Your task to perform on an android device: search for starred emails in the gmail app Image 0: 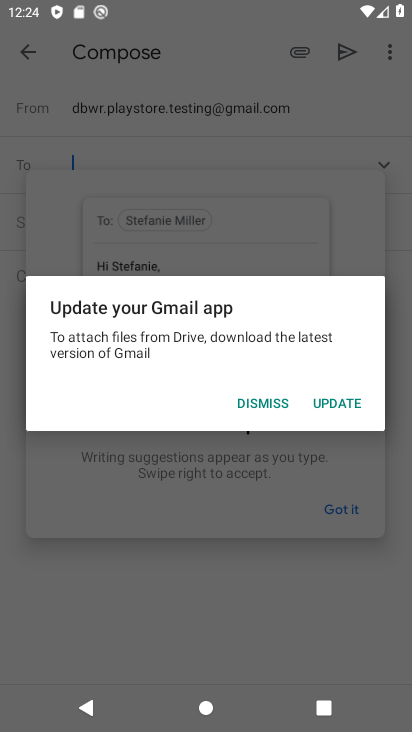
Step 0: press home button
Your task to perform on an android device: search for starred emails in the gmail app Image 1: 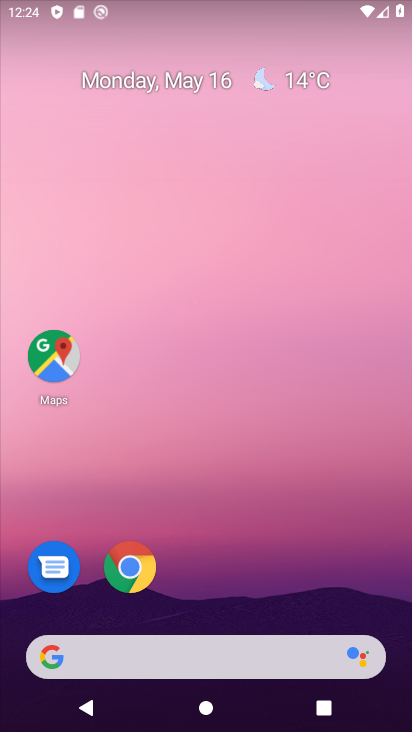
Step 1: drag from (248, 527) to (131, 85)
Your task to perform on an android device: search for starred emails in the gmail app Image 2: 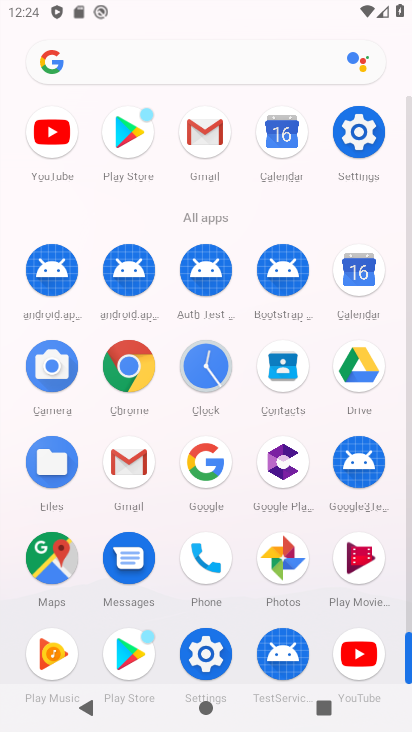
Step 2: click (131, 469)
Your task to perform on an android device: search for starred emails in the gmail app Image 3: 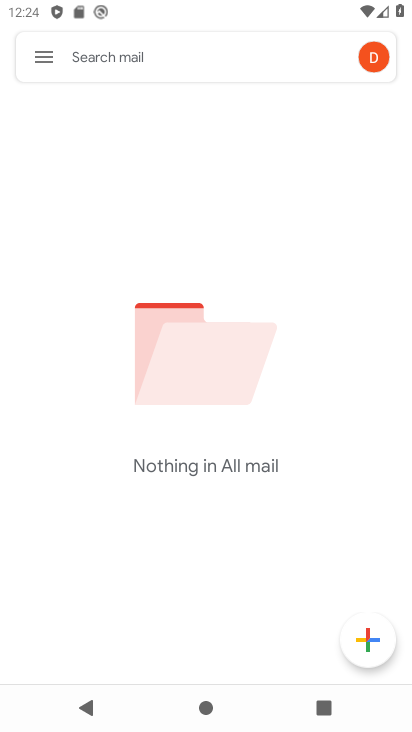
Step 3: click (33, 49)
Your task to perform on an android device: search for starred emails in the gmail app Image 4: 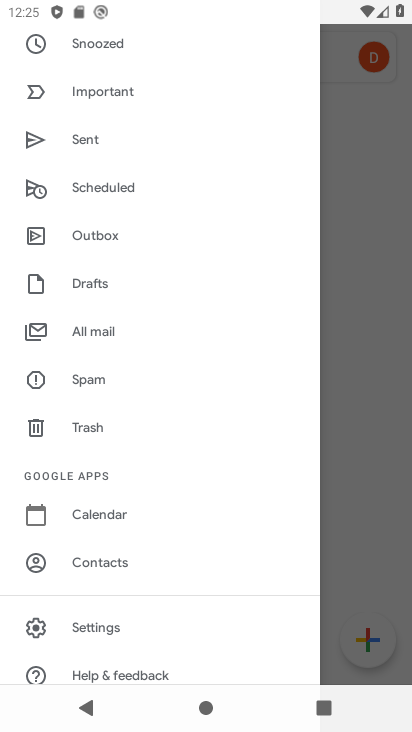
Step 4: drag from (182, 236) to (194, 635)
Your task to perform on an android device: search for starred emails in the gmail app Image 5: 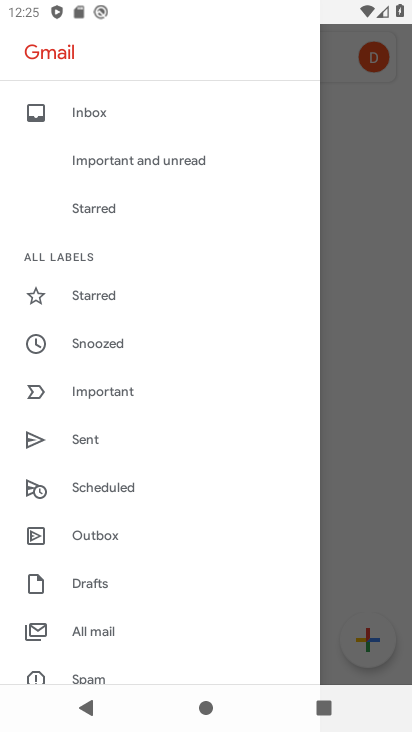
Step 5: click (94, 295)
Your task to perform on an android device: search for starred emails in the gmail app Image 6: 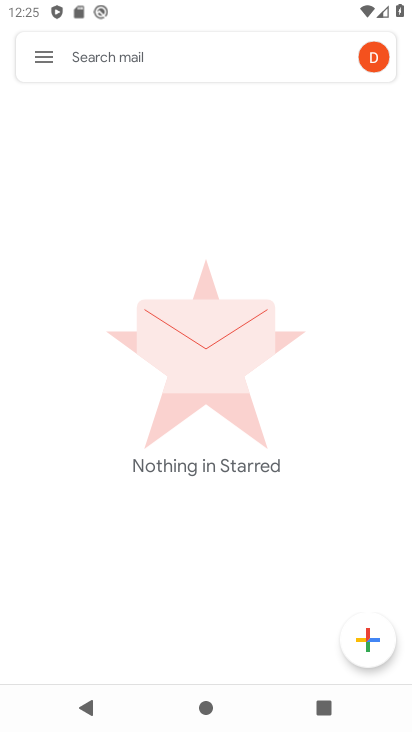
Step 6: task complete